Your task to perform on an android device: Find coffee shops on Maps Image 0: 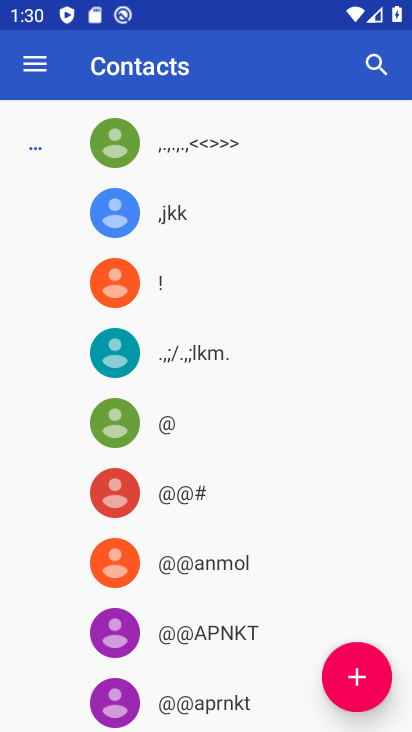
Step 0: press back button
Your task to perform on an android device: Find coffee shops on Maps Image 1: 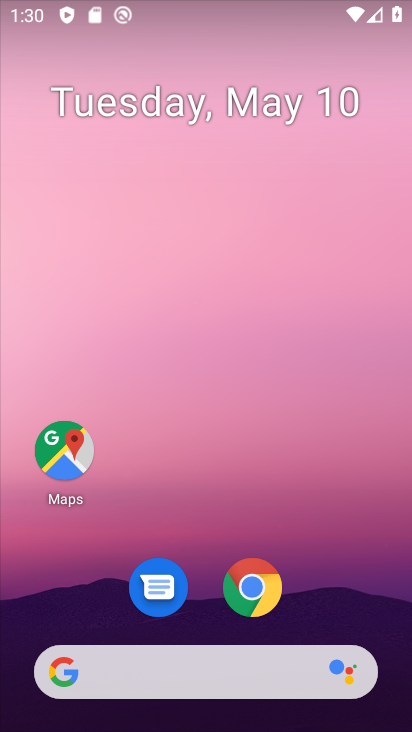
Step 1: drag from (191, 644) to (333, 27)
Your task to perform on an android device: Find coffee shops on Maps Image 2: 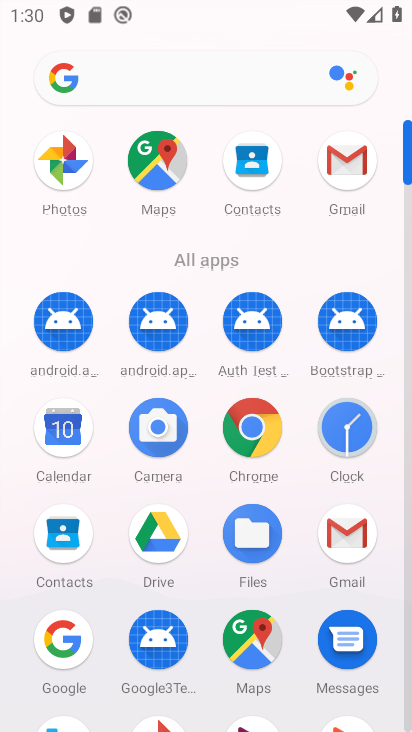
Step 2: click (258, 626)
Your task to perform on an android device: Find coffee shops on Maps Image 3: 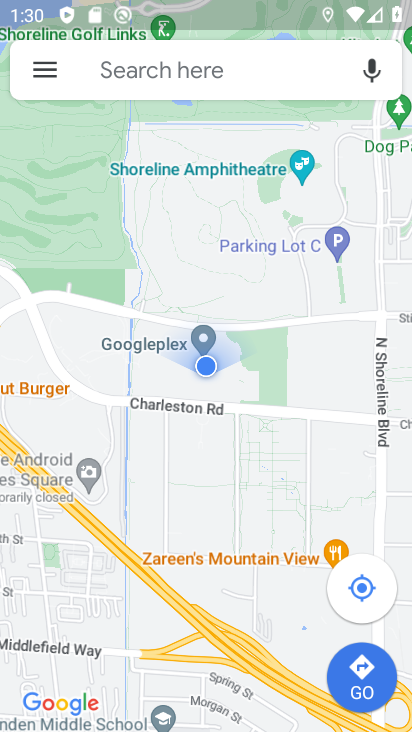
Step 3: click (191, 72)
Your task to perform on an android device: Find coffee shops on Maps Image 4: 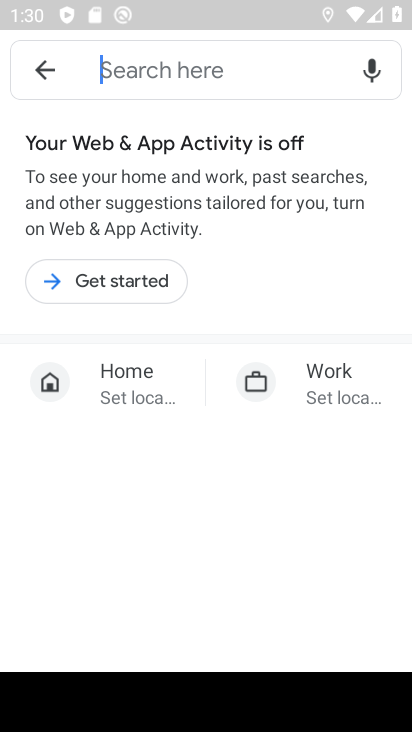
Step 4: type "Coffee shops"
Your task to perform on an android device: Find coffee shops on Maps Image 5: 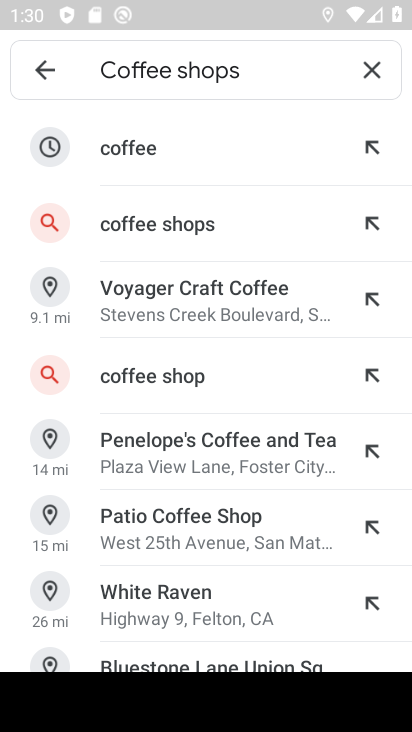
Step 5: click (209, 235)
Your task to perform on an android device: Find coffee shops on Maps Image 6: 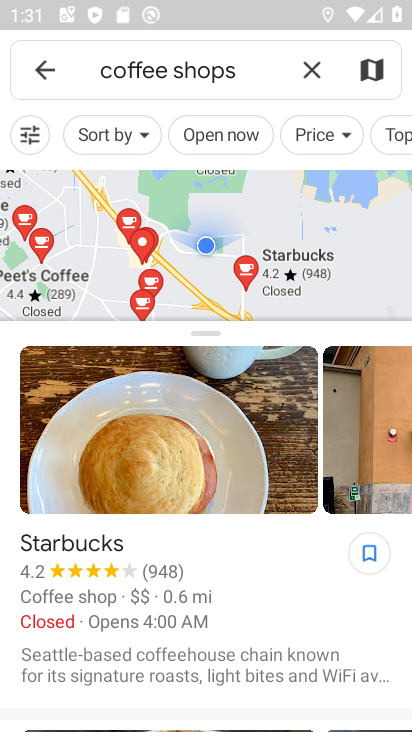
Step 6: task complete